Your task to perform on an android device: Go to settings Image 0: 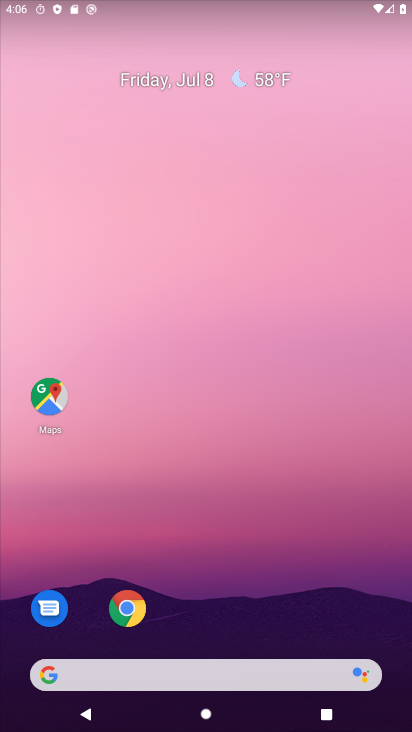
Step 0: drag from (232, 595) to (165, 8)
Your task to perform on an android device: Go to settings Image 1: 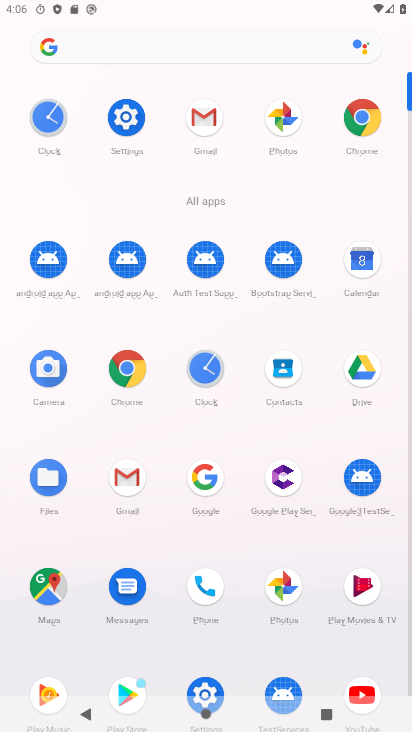
Step 1: click (126, 120)
Your task to perform on an android device: Go to settings Image 2: 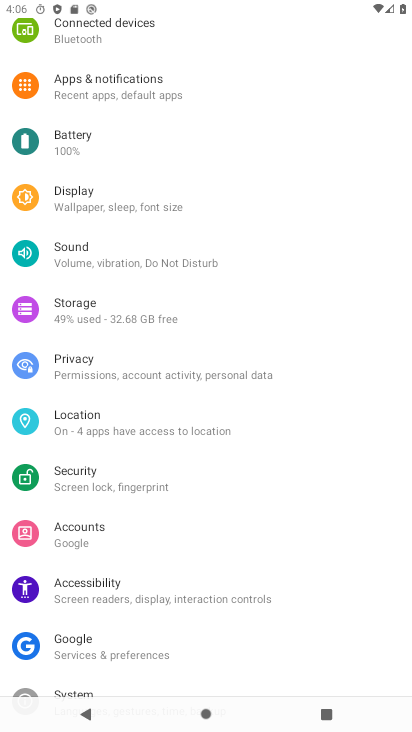
Step 2: task complete